Your task to perform on an android device: Go to location settings Image 0: 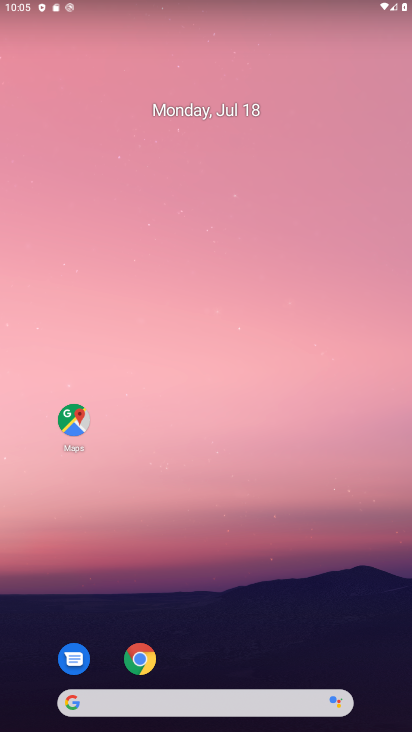
Step 0: click (273, 530)
Your task to perform on an android device: Go to location settings Image 1: 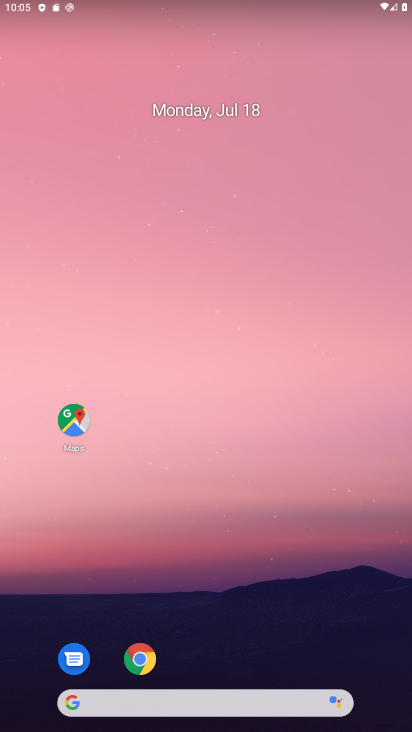
Step 1: drag from (192, 488) to (155, 117)
Your task to perform on an android device: Go to location settings Image 2: 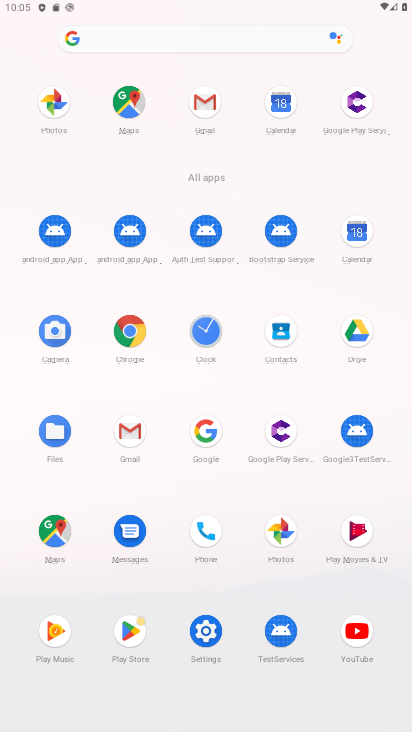
Step 2: click (210, 636)
Your task to perform on an android device: Go to location settings Image 3: 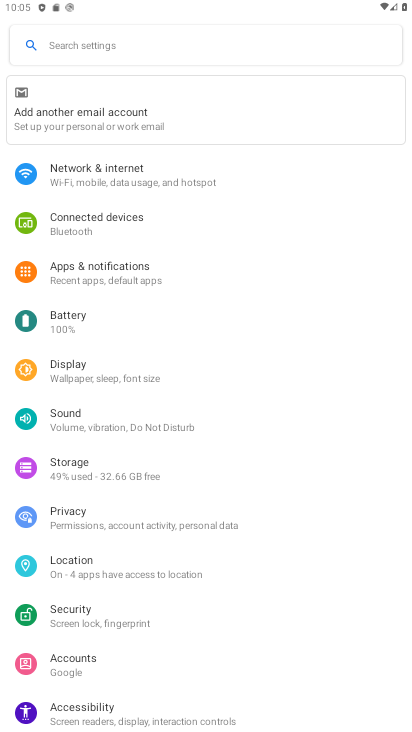
Step 3: click (87, 570)
Your task to perform on an android device: Go to location settings Image 4: 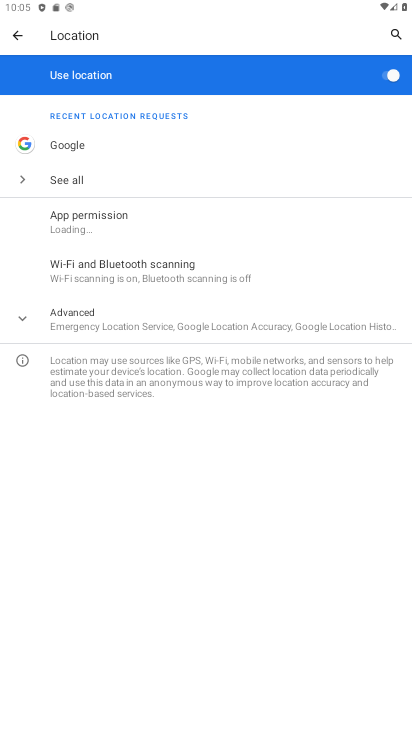
Step 4: task complete